Your task to perform on an android device: set the stopwatch Image 0: 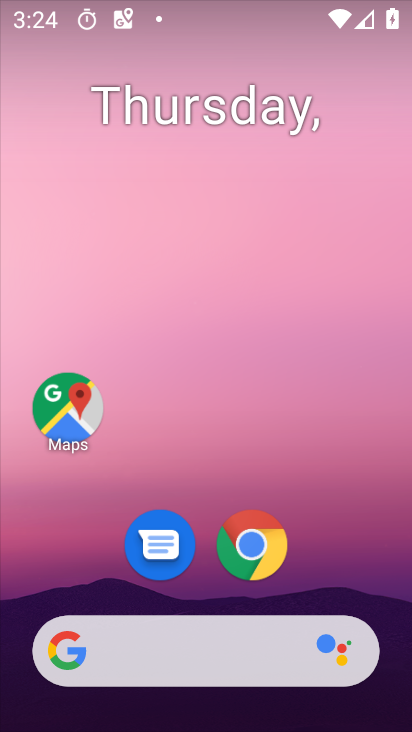
Step 0: drag from (226, 700) to (226, 156)
Your task to perform on an android device: set the stopwatch Image 1: 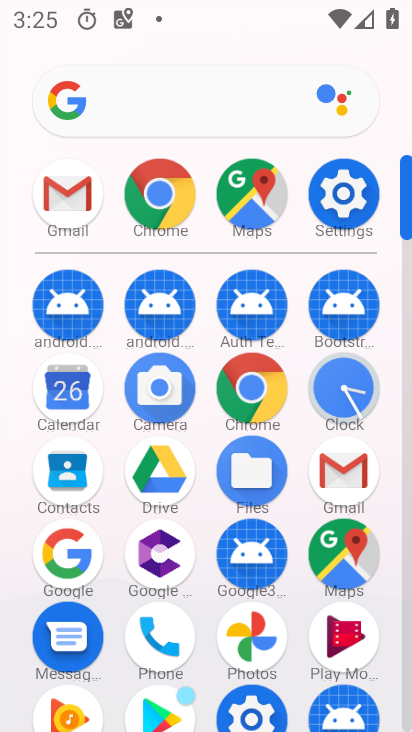
Step 1: click (334, 377)
Your task to perform on an android device: set the stopwatch Image 2: 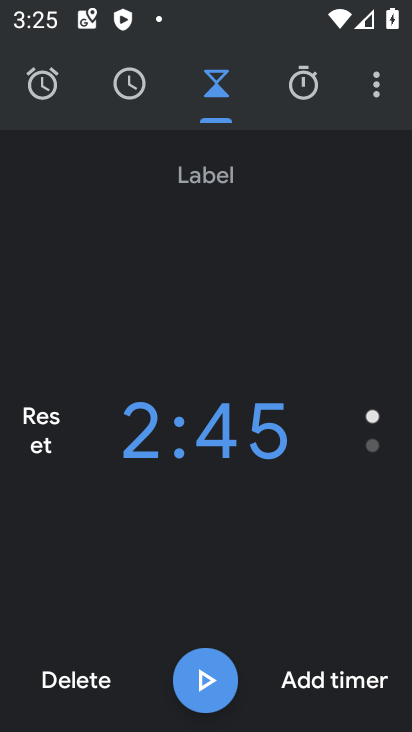
Step 2: click (310, 79)
Your task to perform on an android device: set the stopwatch Image 3: 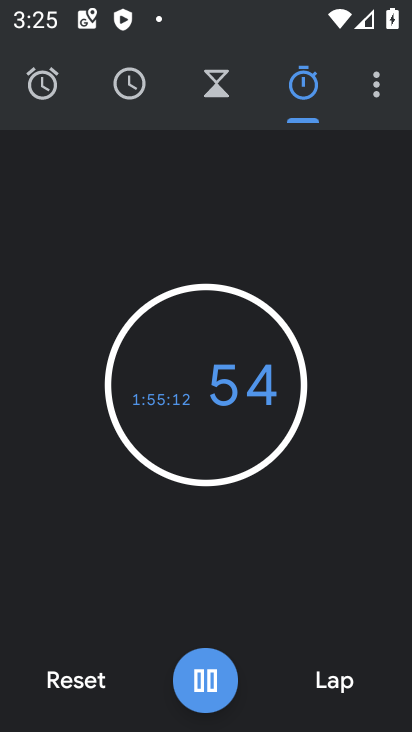
Step 3: click (59, 684)
Your task to perform on an android device: set the stopwatch Image 4: 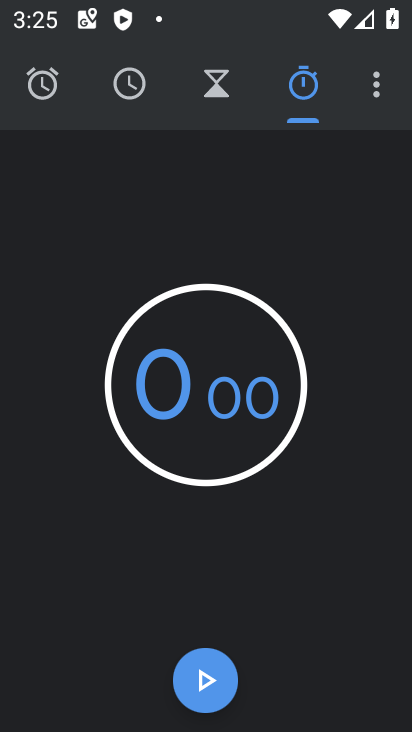
Step 4: click (232, 374)
Your task to perform on an android device: set the stopwatch Image 5: 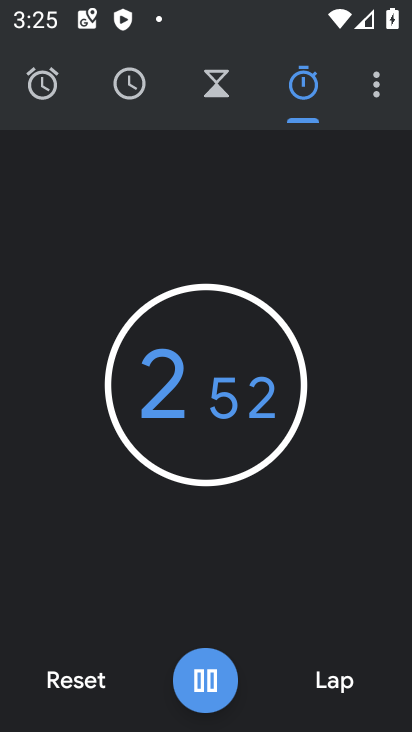
Step 5: type "77"
Your task to perform on an android device: set the stopwatch Image 6: 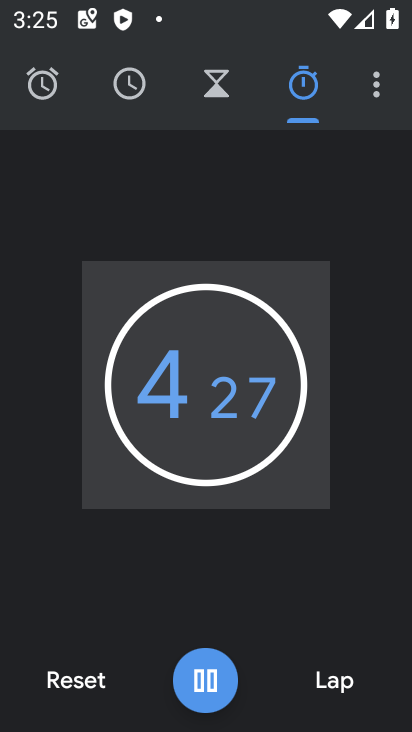
Step 6: task complete